Your task to perform on an android device: change the upload size in google photos Image 0: 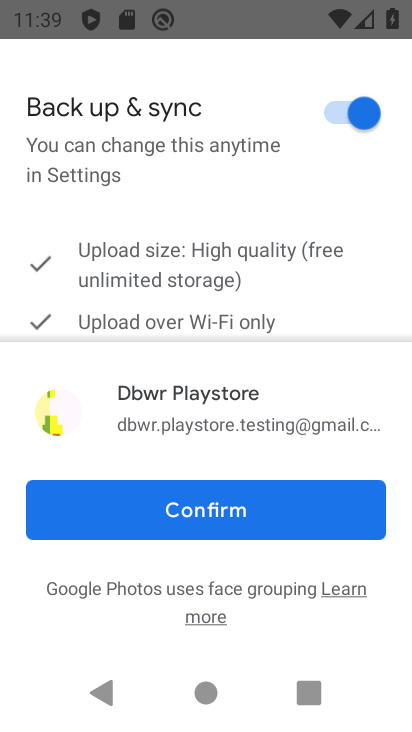
Step 0: click (203, 513)
Your task to perform on an android device: change the upload size in google photos Image 1: 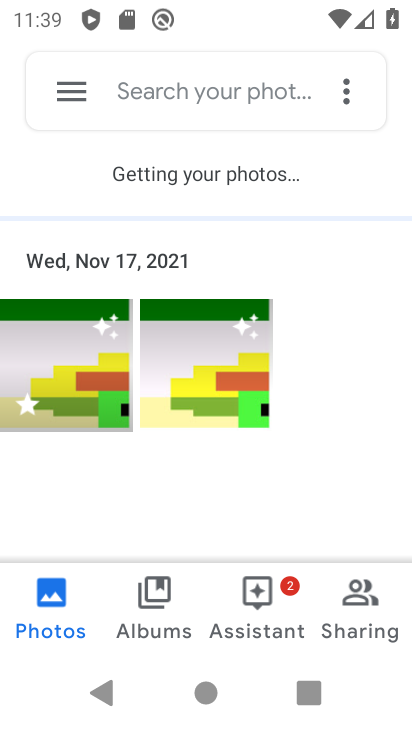
Step 1: click (74, 84)
Your task to perform on an android device: change the upload size in google photos Image 2: 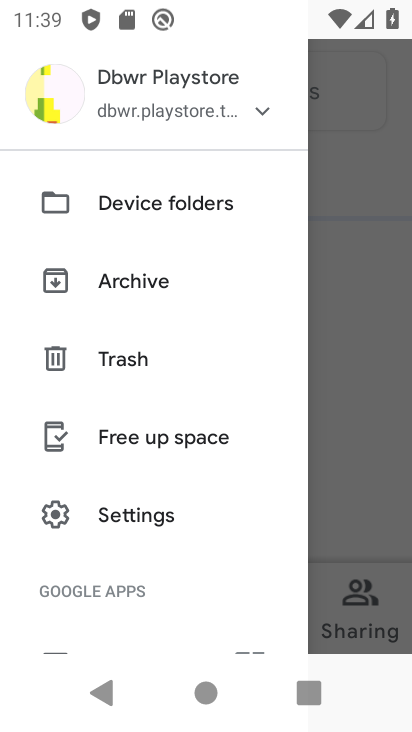
Step 2: click (118, 520)
Your task to perform on an android device: change the upload size in google photos Image 3: 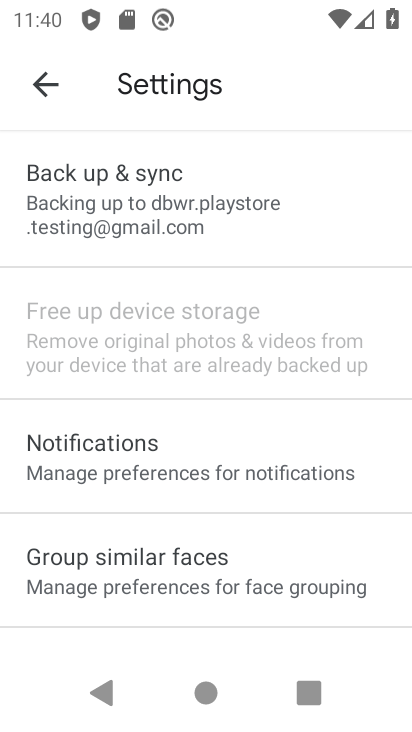
Step 3: click (239, 195)
Your task to perform on an android device: change the upload size in google photos Image 4: 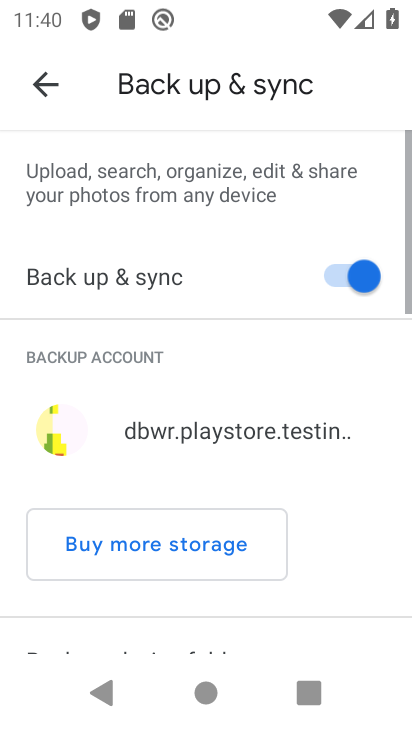
Step 4: drag from (228, 508) to (230, 111)
Your task to perform on an android device: change the upload size in google photos Image 5: 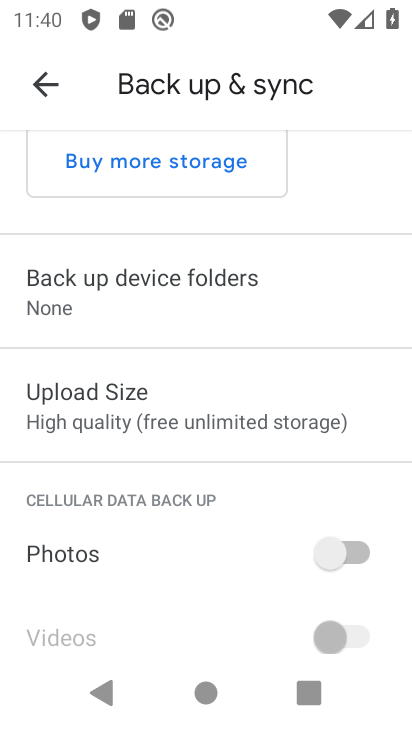
Step 5: click (179, 414)
Your task to perform on an android device: change the upload size in google photos Image 6: 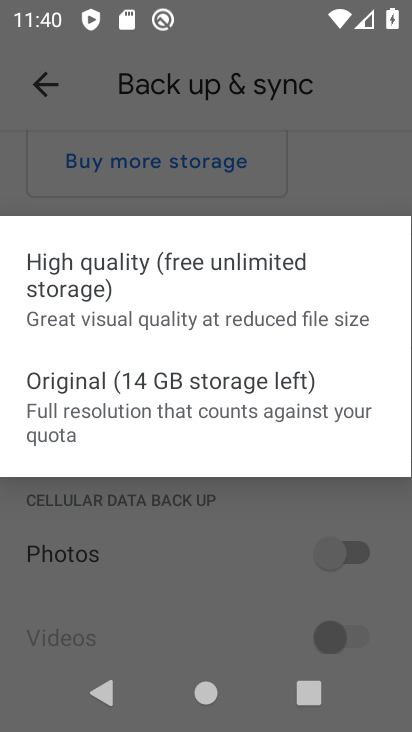
Step 6: click (179, 404)
Your task to perform on an android device: change the upload size in google photos Image 7: 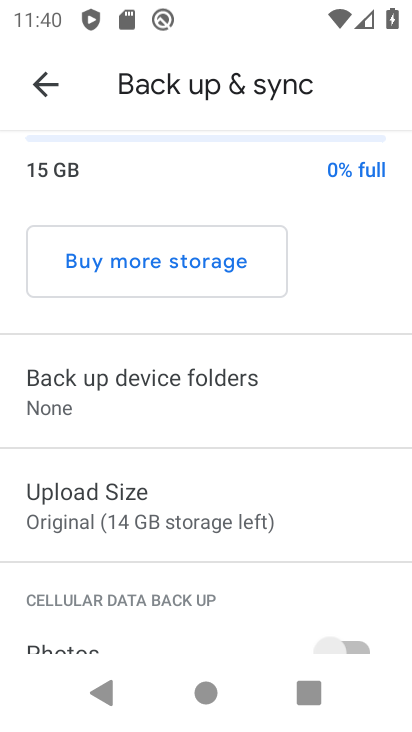
Step 7: task complete